Your task to perform on an android device: turn off notifications settings in the gmail app Image 0: 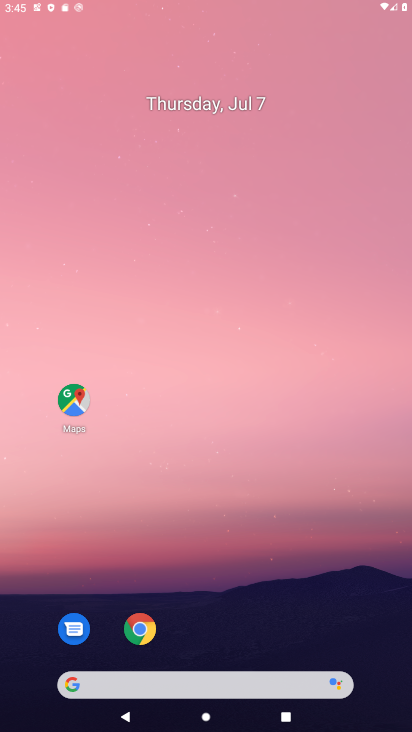
Step 0: drag from (287, 624) to (242, 330)
Your task to perform on an android device: turn off notifications settings in the gmail app Image 1: 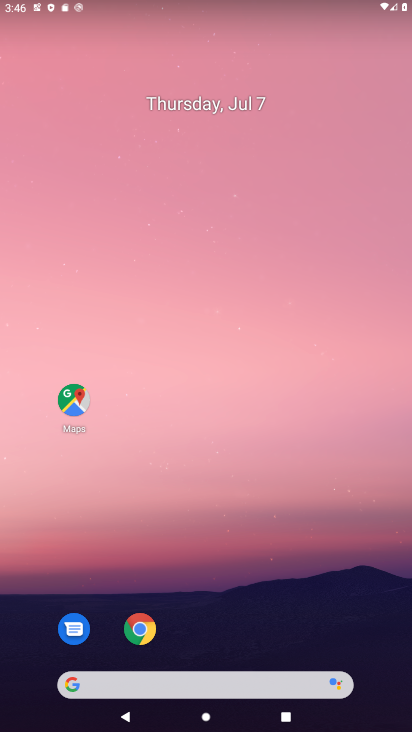
Step 1: drag from (250, 573) to (247, 517)
Your task to perform on an android device: turn off notifications settings in the gmail app Image 2: 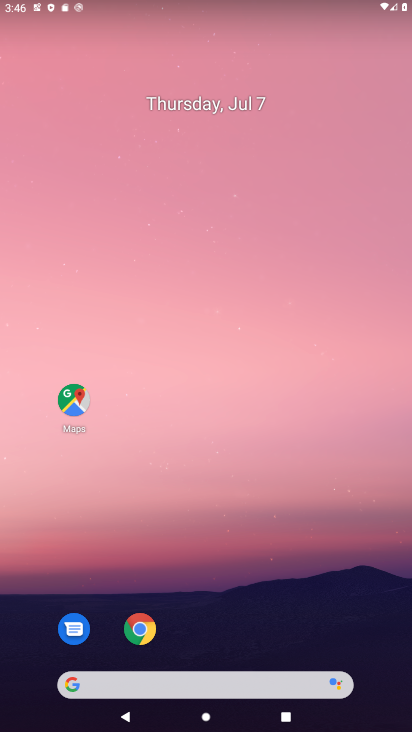
Step 2: drag from (210, 648) to (244, 366)
Your task to perform on an android device: turn off notifications settings in the gmail app Image 3: 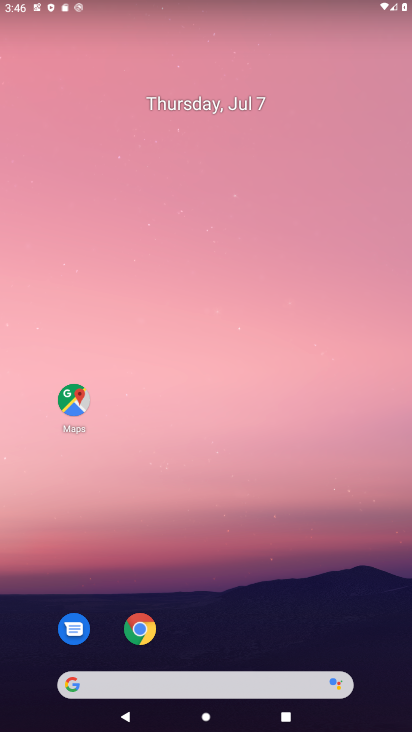
Step 3: drag from (238, 628) to (237, 236)
Your task to perform on an android device: turn off notifications settings in the gmail app Image 4: 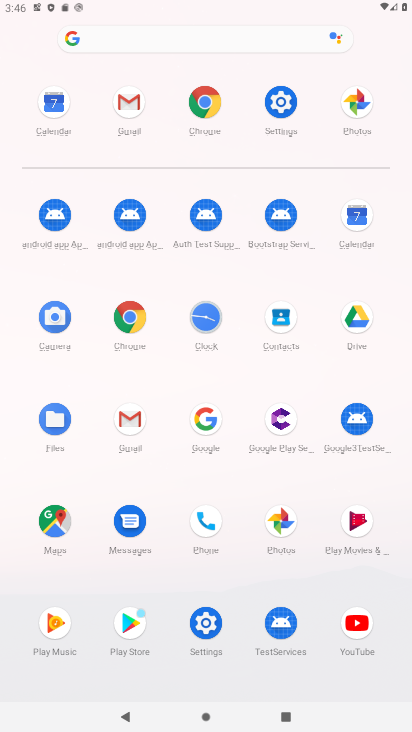
Step 4: click (125, 99)
Your task to perform on an android device: turn off notifications settings in the gmail app Image 5: 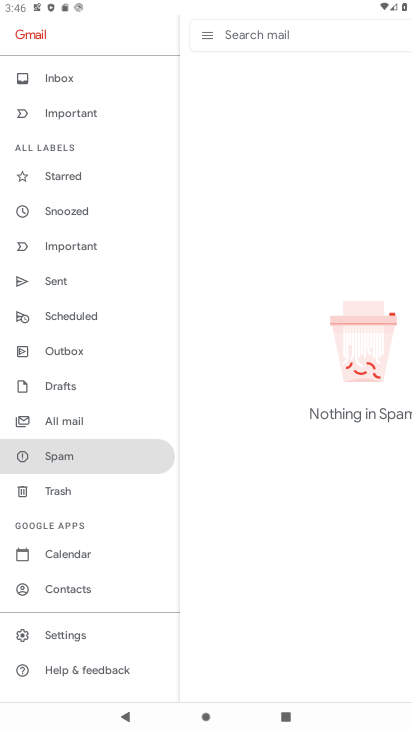
Step 5: click (68, 626)
Your task to perform on an android device: turn off notifications settings in the gmail app Image 6: 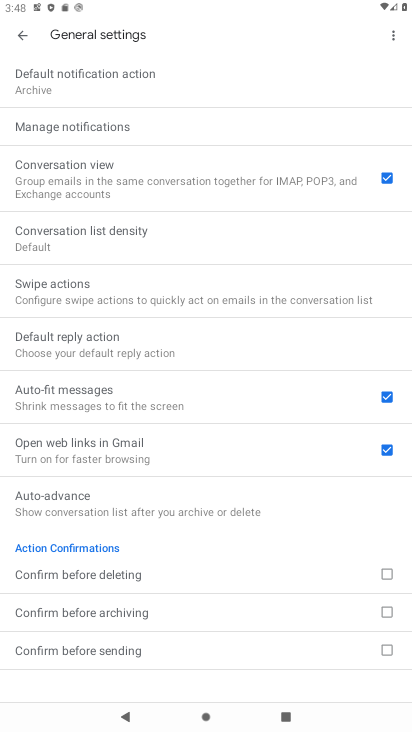
Step 6: task complete